Your task to perform on an android device: check the backup settings in the google photos Image 0: 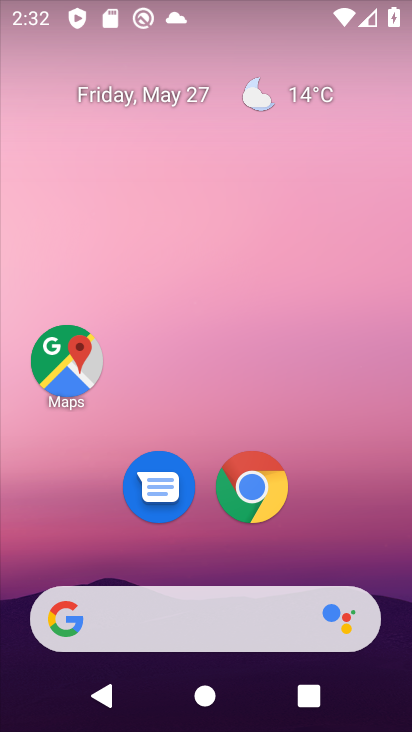
Step 0: drag from (316, 536) to (340, 338)
Your task to perform on an android device: check the backup settings in the google photos Image 1: 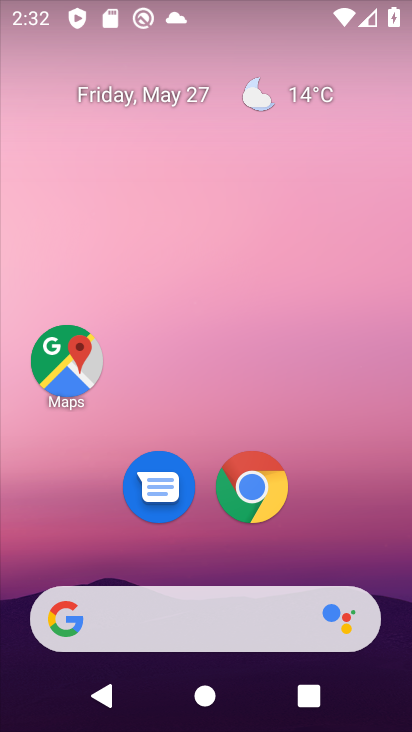
Step 1: drag from (307, 562) to (338, 97)
Your task to perform on an android device: check the backup settings in the google photos Image 2: 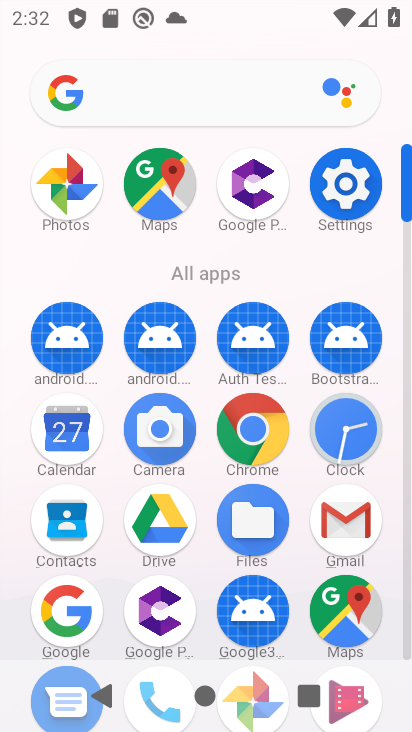
Step 2: drag from (207, 391) to (226, 107)
Your task to perform on an android device: check the backup settings in the google photos Image 3: 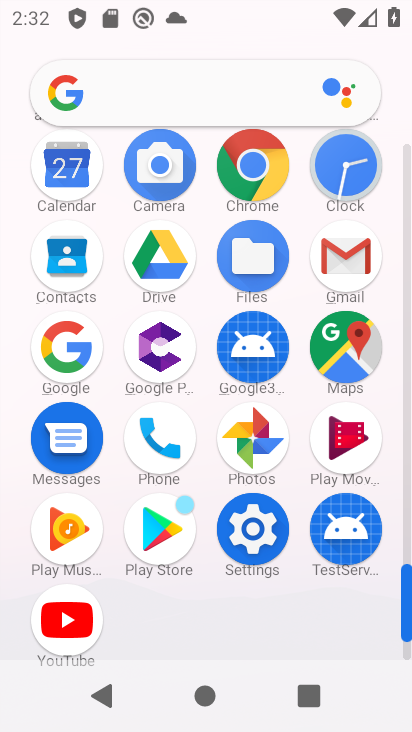
Step 3: click (254, 437)
Your task to perform on an android device: check the backup settings in the google photos Image 4: 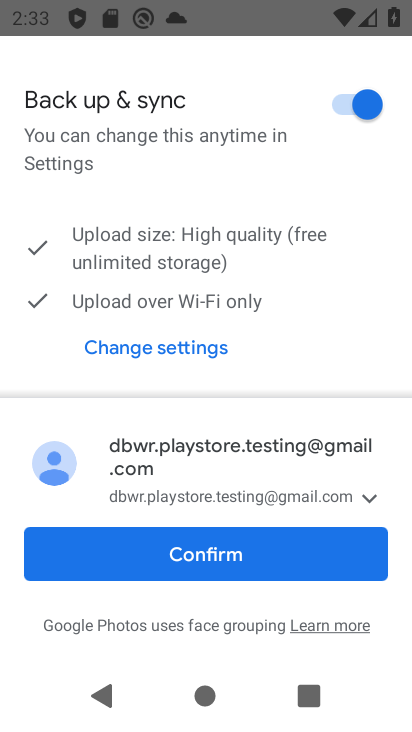
Step 4: click (179, 551)
Your task to perform on an android device: check the backup settings in the google photos Image 5: 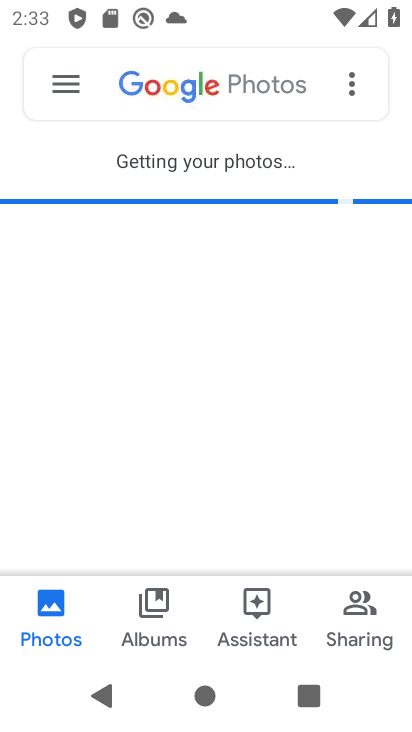
Step 5: click (44, 66)
Your task to perform on an android device: check the backup settings in the google photos Image 6: 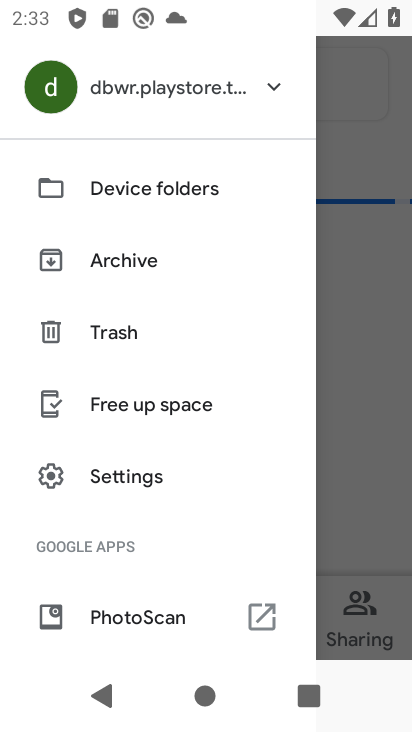
Step 6: click (119, 467)
Your task to perform on an android device: check the backup settings in the google photos Image 7: 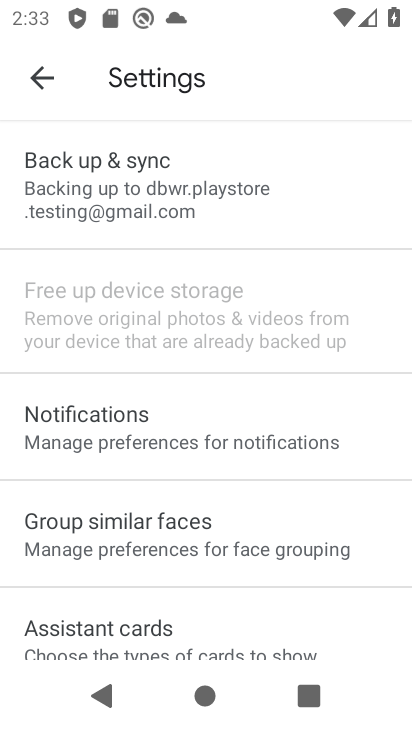
Step 7: click (99, 183)
Your task to perform on an android device: check the backup settings in the google photos Image 8: 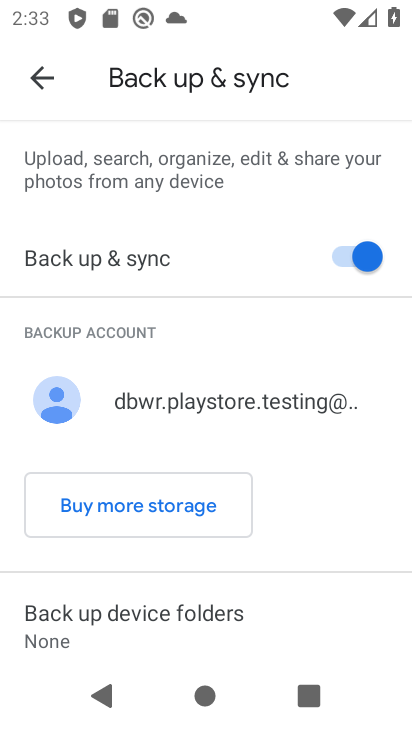
Step 8: task complete